Your task to perform on an android device: Open Chrome and go to settings Image 0: 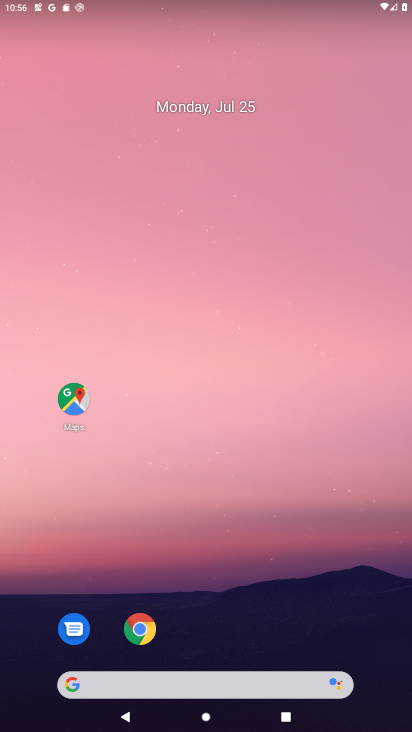
Step 0: click (142, 635)
Your task to perform on an android device: Open Chrome and go to settings Image 1: 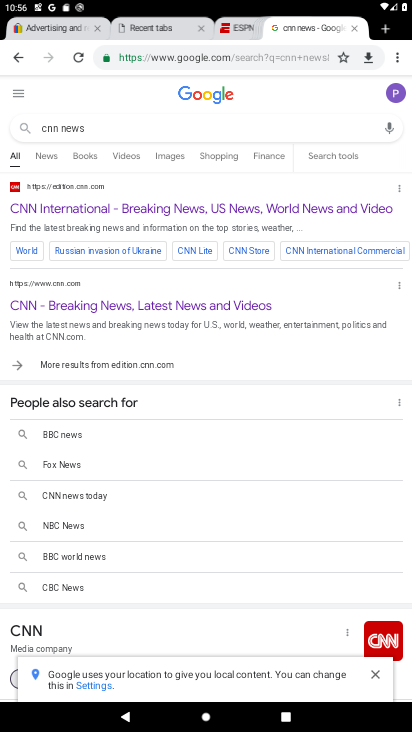
Step 1: click (393, 59)
Your task to perform on an android device: Open Chrome and go to settings Image 2: 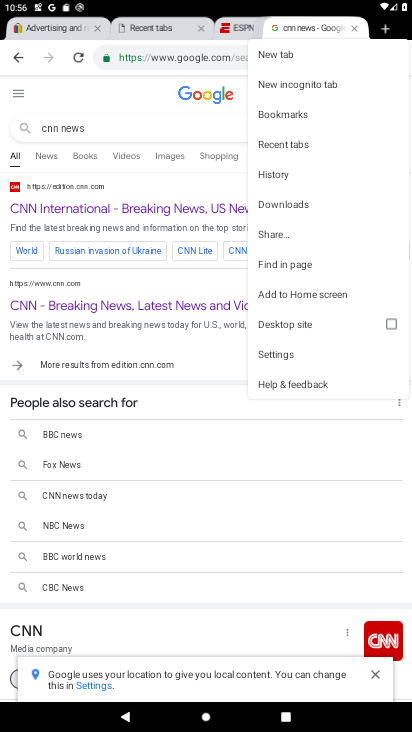
Step 2: click (297, 360)
Your task to perform on an android device: Open Chrome and go to settings Image 3: 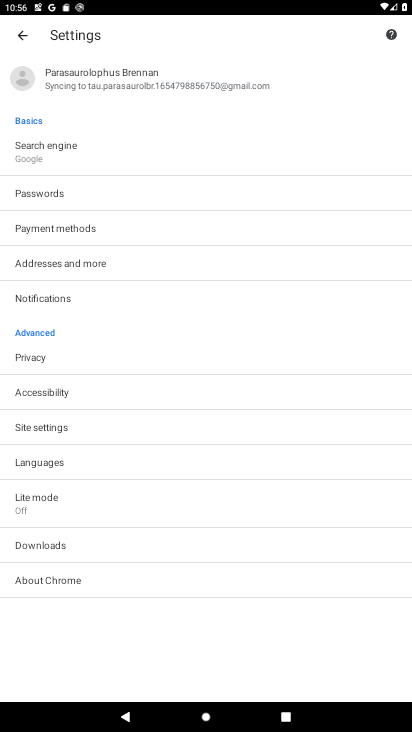
Step 3: task complete